Your task to perform on an android device: change notification settings in the gmail app Image 0: 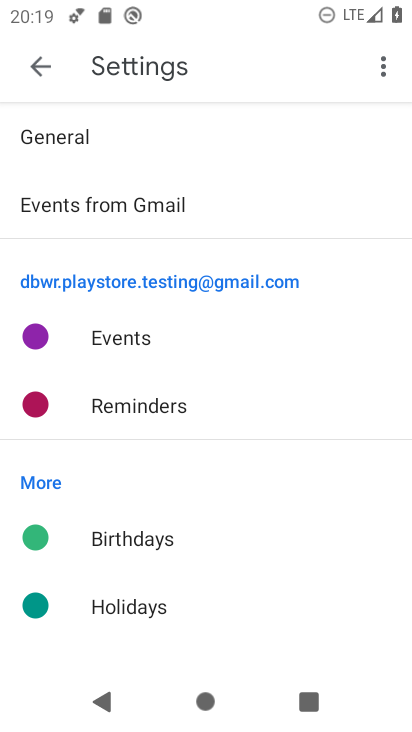
Step 0: press home button
Your task to perform on an android device: change notification settings in the gmail app Image 1: 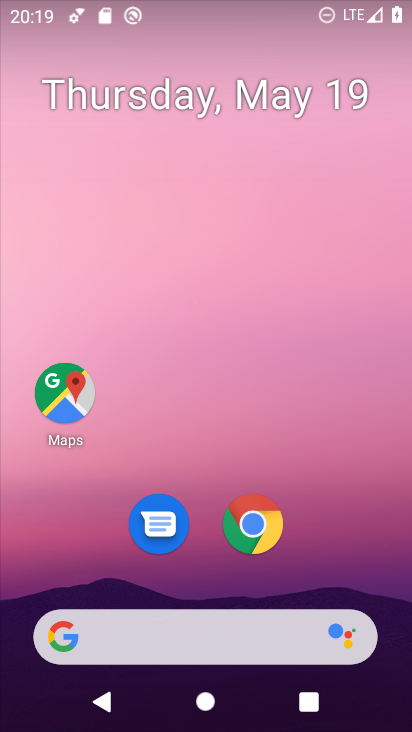
Step 1: drag from (321, 524) to (336, 86)
Your task to perform on an android device: change notification settings in the gmail app Image 2: 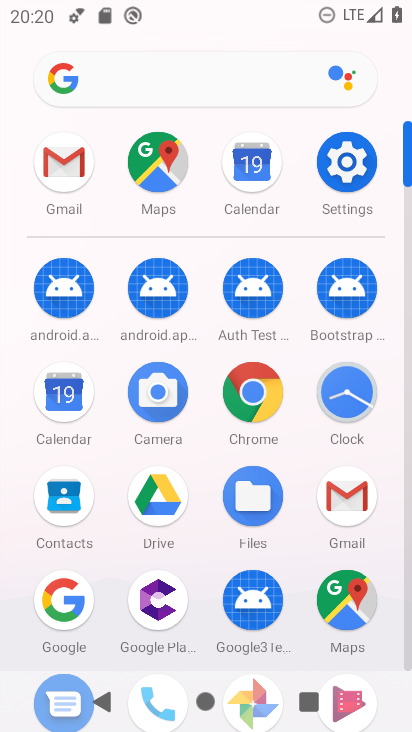
Step 2: click (343, 496)
Your task to perform on an android device: change notification settings in the gmail app Image 3: 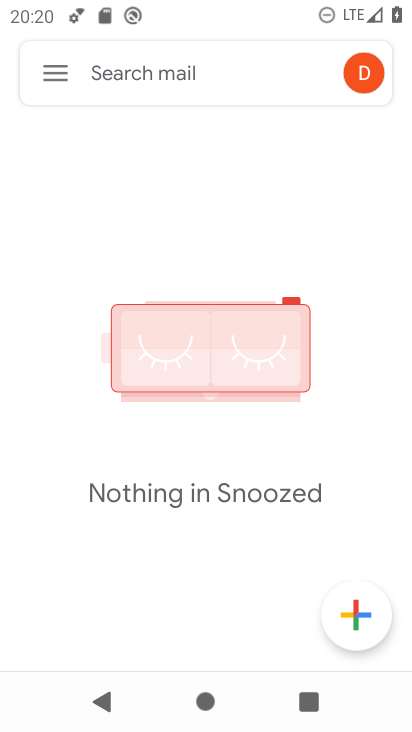
Step 3: click (62, 73)
Your task to perform on an android device: change notification settings in the gmail app Image 4: 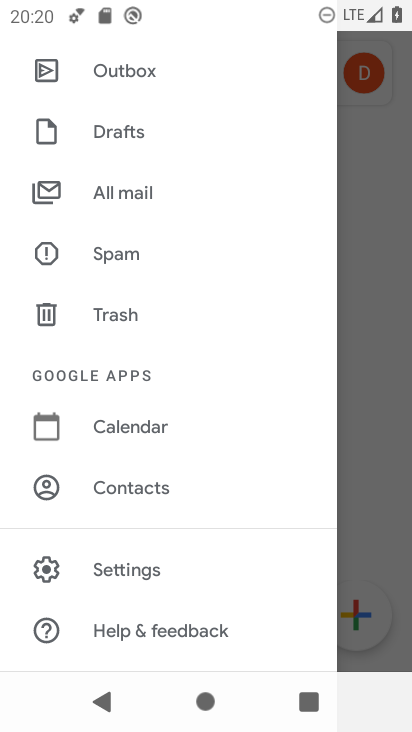
Step 4: click (137, 568)
Your task to perform on an android device: change notification settings in the gmail app Image 5: 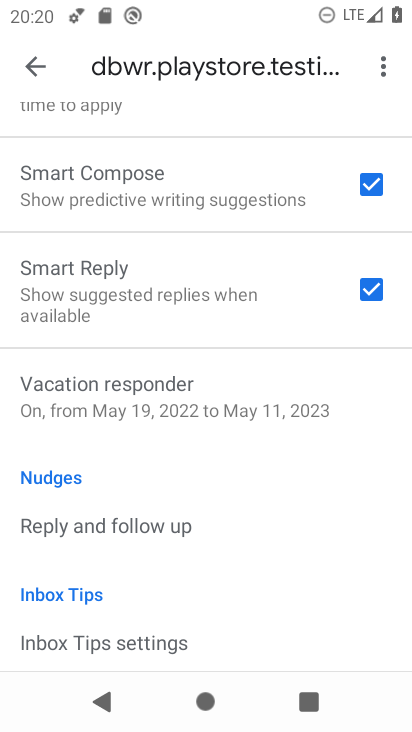
Step 5: drag from (184, 239) to (173, 649)
Your task to perform on an android device: change notification settings in the gmail app Image 6: 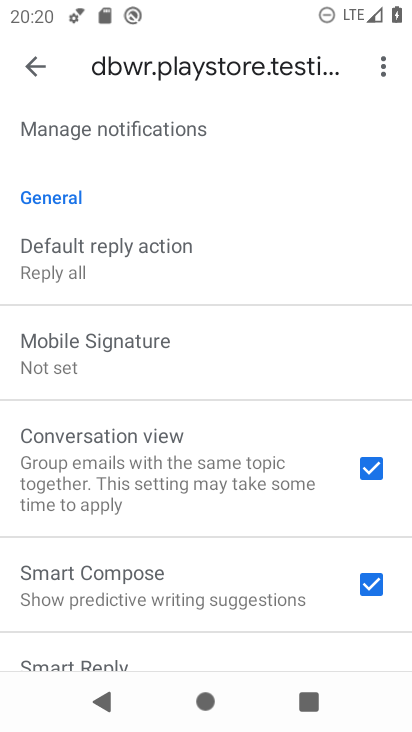
Step 6: click (217, 132)
Your task to perform on an android device: change notification settings in the gmail app Image 7: 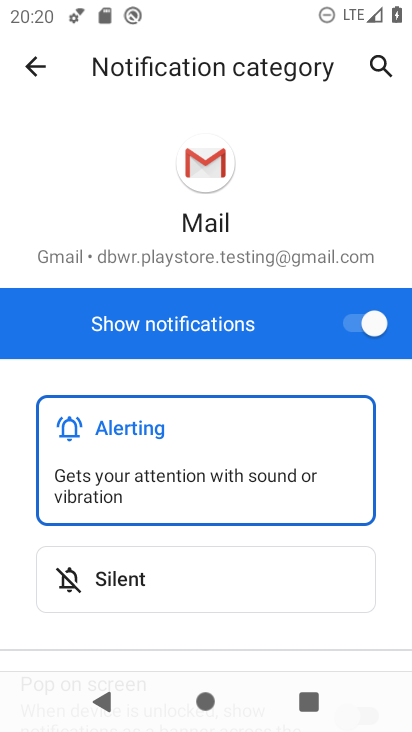
Step 7: click (351, 321)
Your task to perform on an android device: change notification settings in the gmail app Image 8: 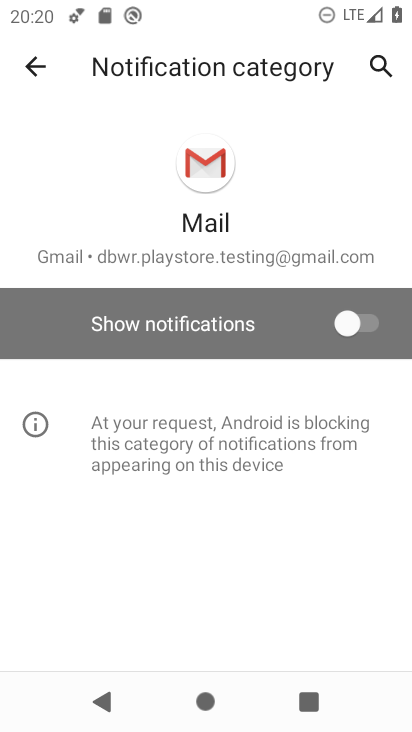
Step 8: task complete